Your task to perform on an android device: set the stopwatch Image 0: 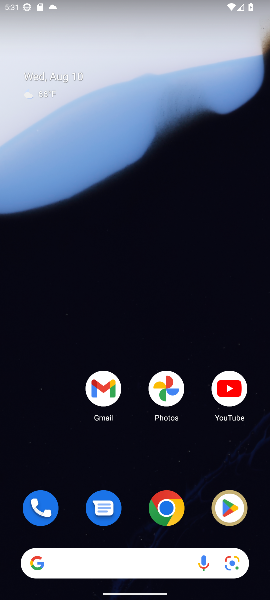
Step 0: press home button
Your task to perform on an android device: set the stopwatch Image 1: 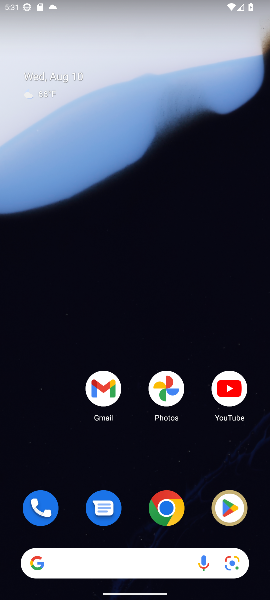
Step 1: drag from (52, 459) to (77, 117)
Your task to perform on an android device: set the stopwatch Image 2: 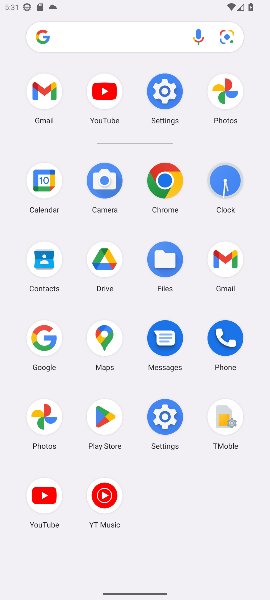
Step 2: click (220, 182)
Your task to perform on an android device: set the stopwatch Image 3: 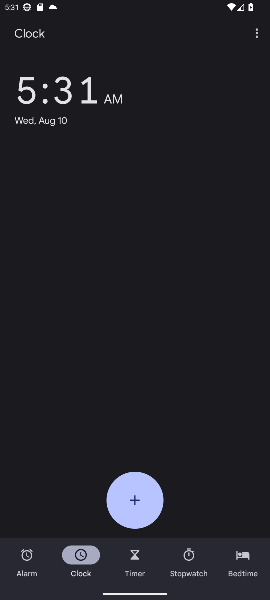
Step 3: click (192, 565)
Your task to perform on an android device: set the stopwatch Image 4: 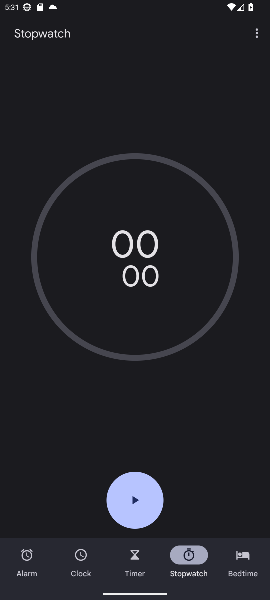
Step 4: click (136, 498)
Your task to perform on an android device: set the stopwatch Image 5: 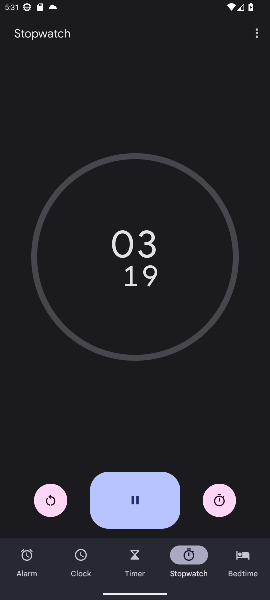
Step 5: click (139, 497)
Your task to perform on an android device: set the stopwatch Image 6: 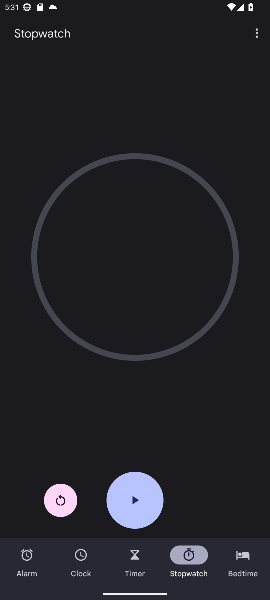
Step 6: task complete